Your task to perform on an android device: Open settings on Google Maps Image 0: 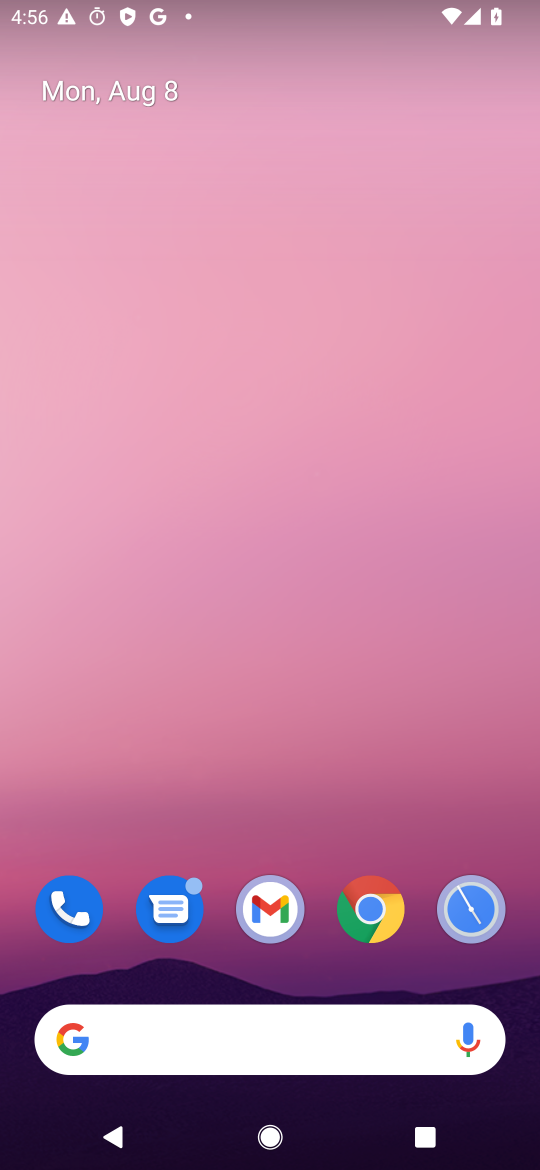
Step 0: drag from (291, 1050) to (422, 272)
Your task to perform on an android device: Open settings on Google Maps Image 1: 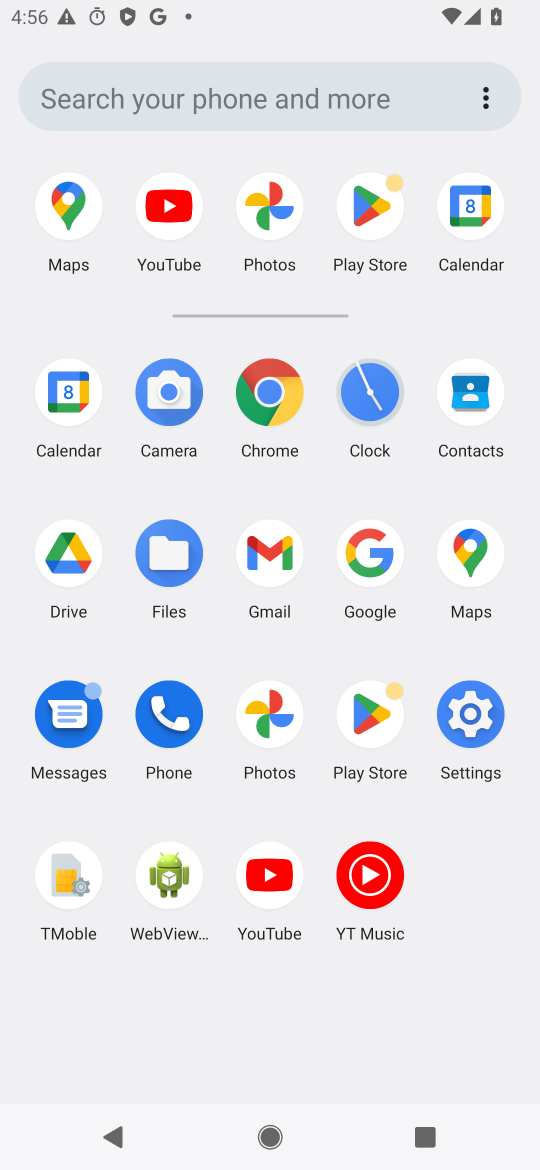
Step 1: click (71, 211)
Your task to perform on an android device: Open settings on Google Maps Image 2: 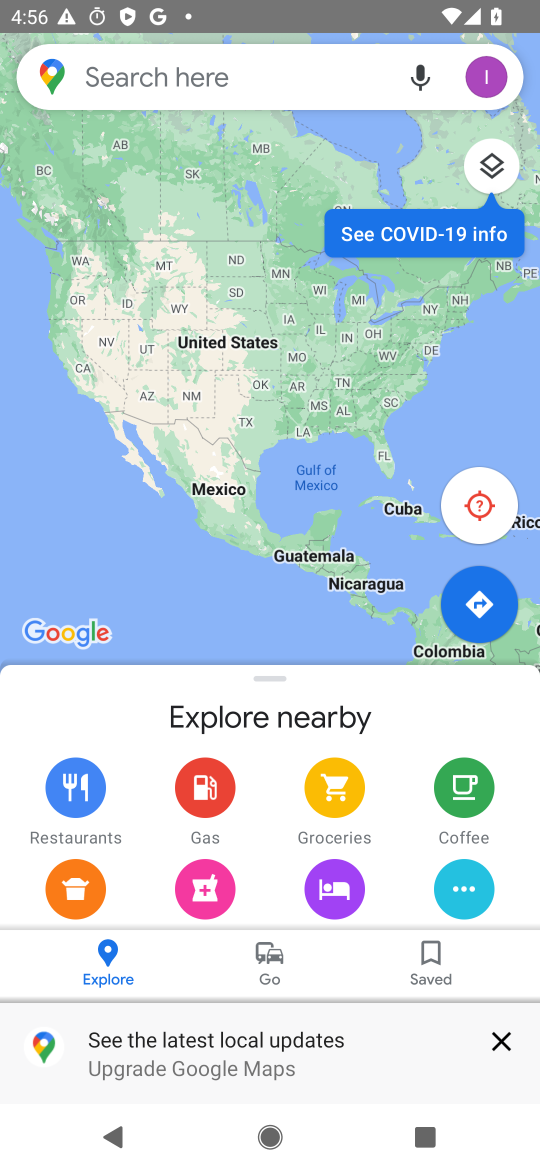
Step 2: click (475, 74)
Your task to perform on an android device: Open settings on Google Maps Image 3: 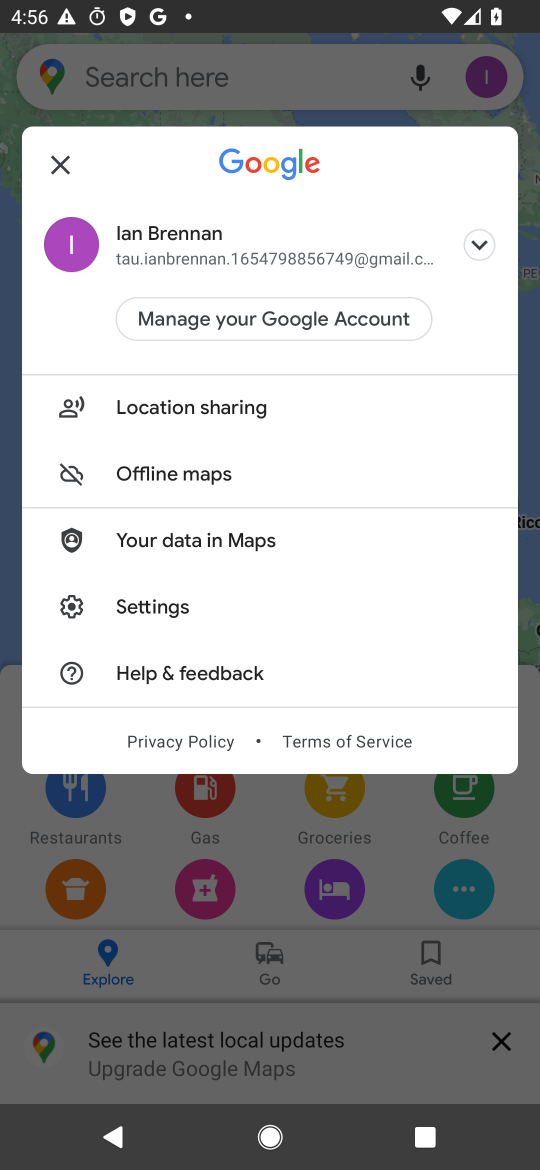
Step 3: click (194, 600)
Your task to perform on an android device: Open settings on Google Maps Image 4: 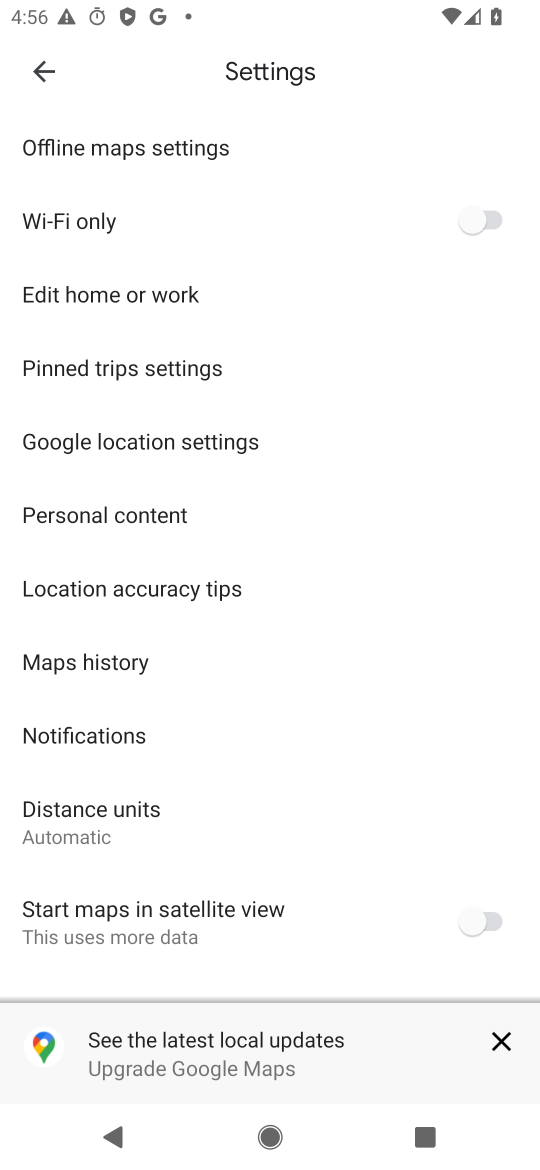
Step 4: task complete